Your task to perform on an android device: Search for a new eyeshadow Image 0: 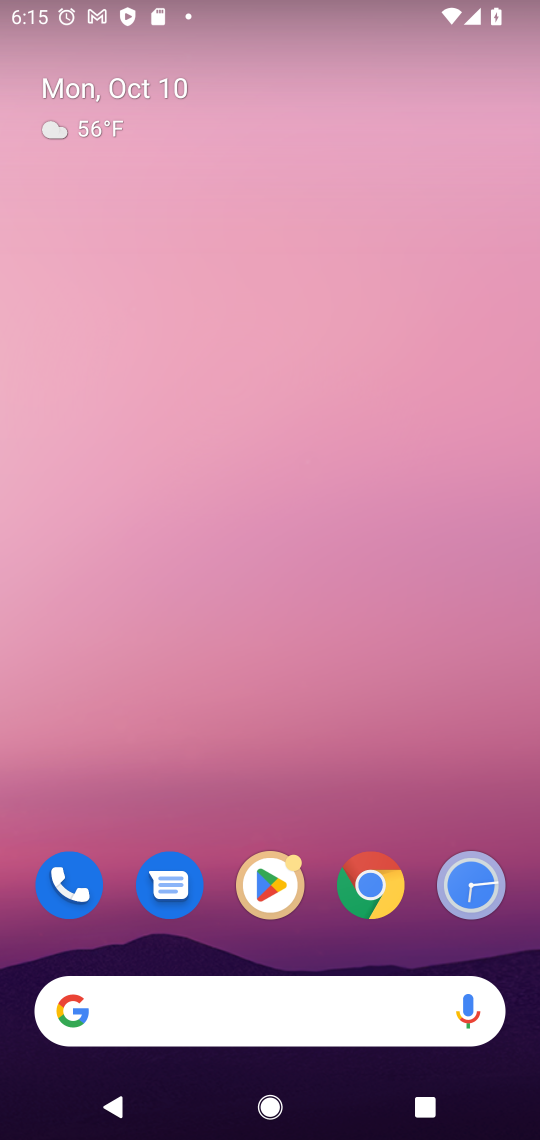
Step 0: click (212, 1003)
Your task to perform on an android device: Search for a new eyeshadow Image 1: 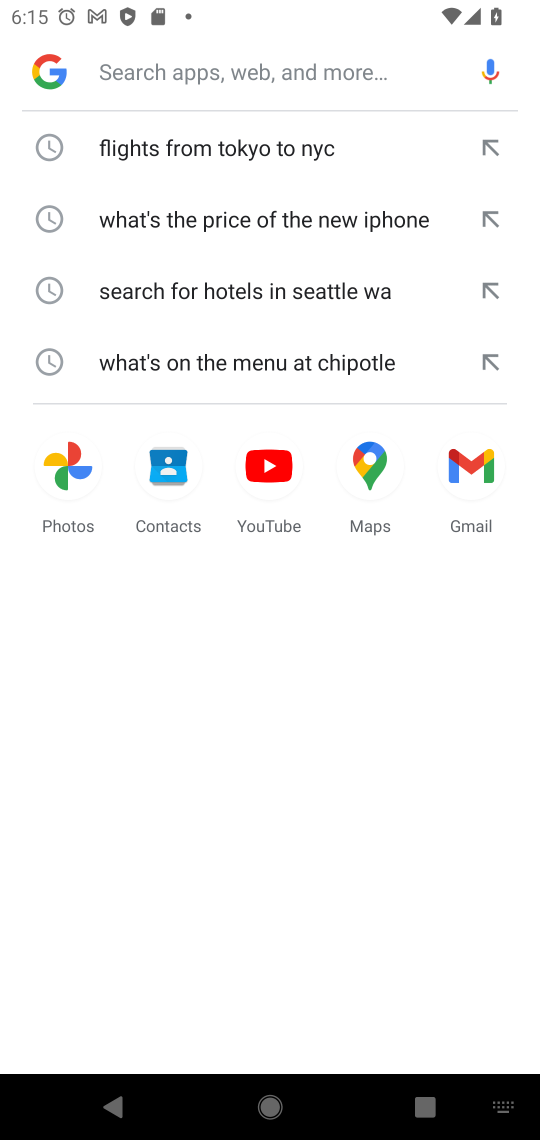
Step 1: type "new eyeshadow"
Your task to perform on an android device: Search for a new eyeshadow Image 2: 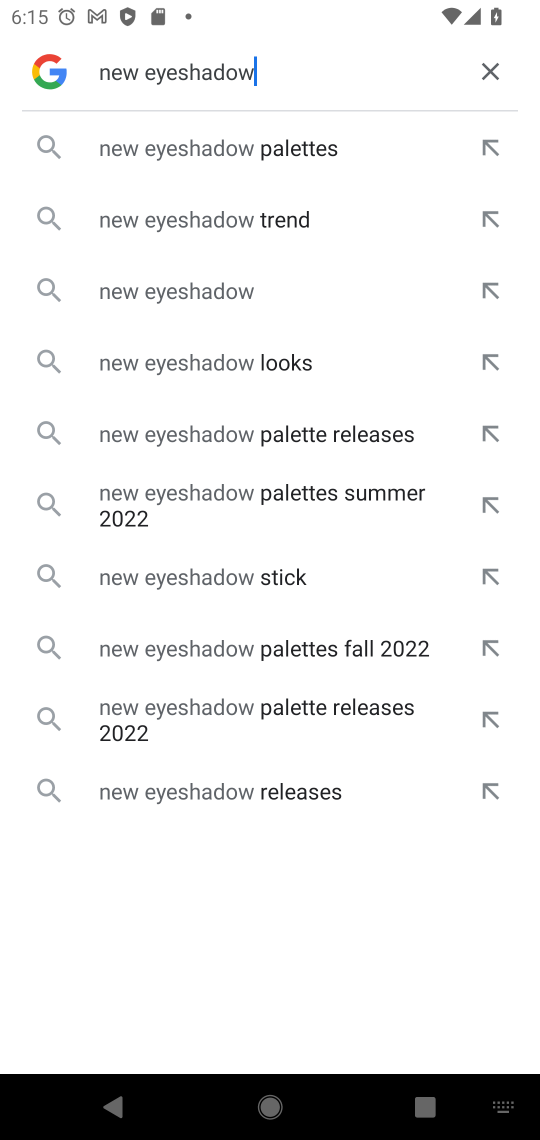
Step 2: click (137, 290)
Your task to perform on an android device: Search for a new eyeshadow Image 3: 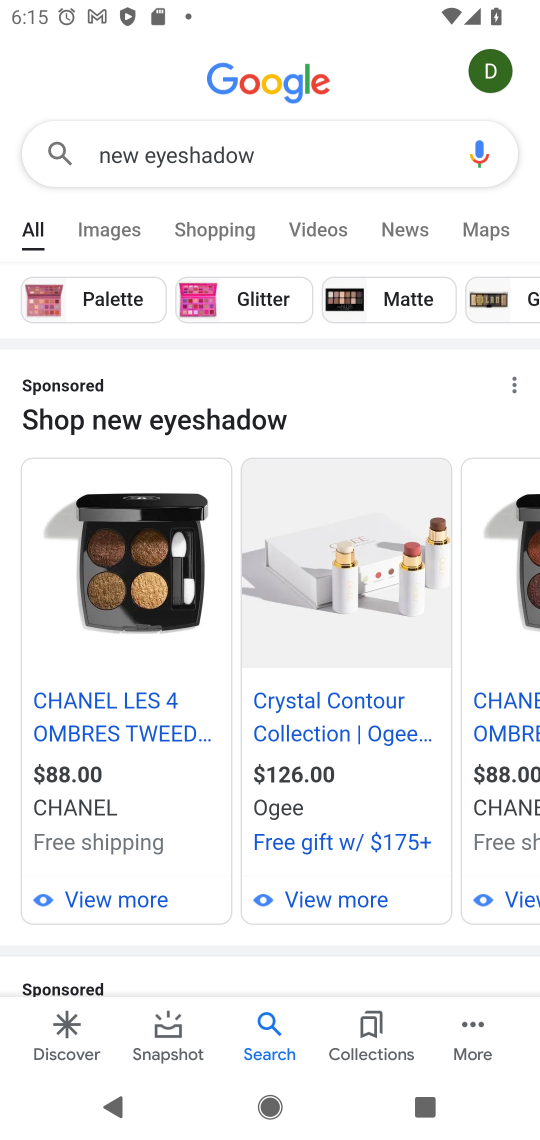
Step 3: task complete